Your task to perform on an android device: change the upload size in google photos Image 0: 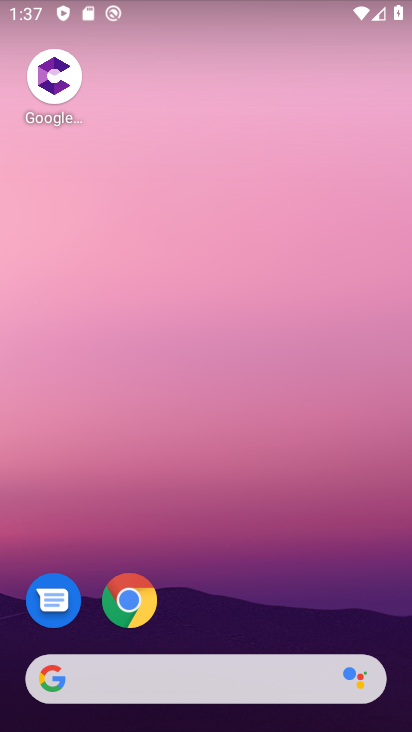
Step 0: press home button
Your task to perform on an android device: change the upload size in google photos Image 1: 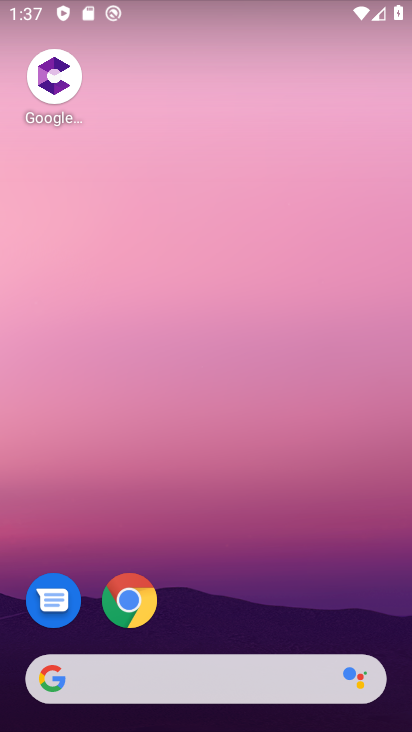
Step 1: drag from (234, 638) to (270, 18)
Your task to perform on an android device: change the upload size in google photos Image 2: 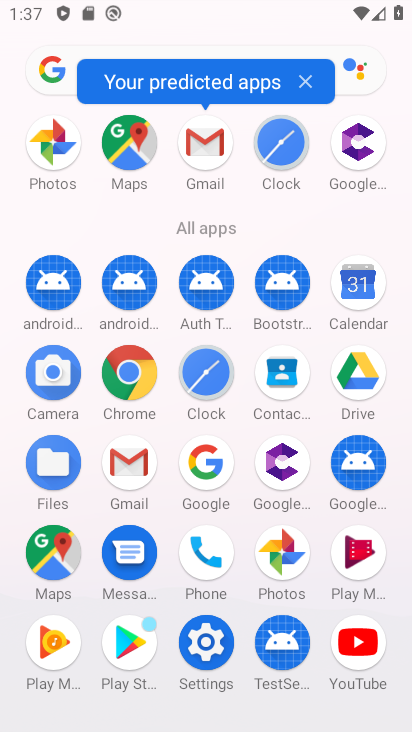
Step 2: click (278, 550)
Your task to perform on an android device: change the upload size in google photos Image 3: 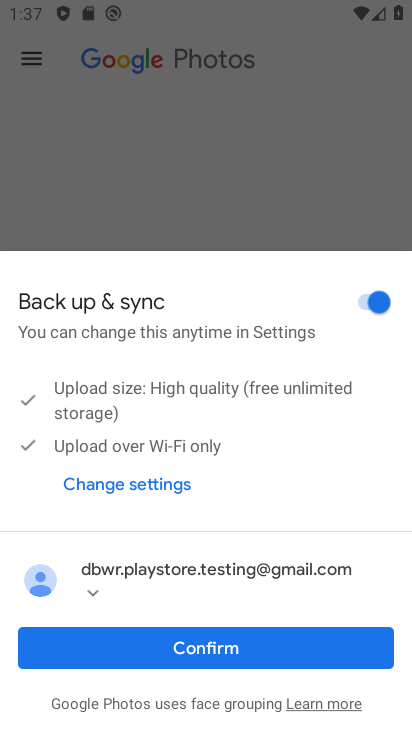
Step 3: click (189, 644)
Your task to perform on an android device: change the upload size in google photos Image 4: 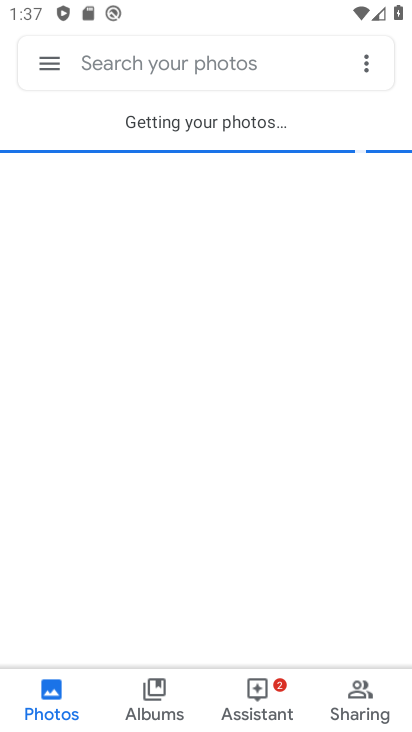
Step 4: click (42, 56)
Your task to perform on an android device: change the upload size in google photos Image 5: 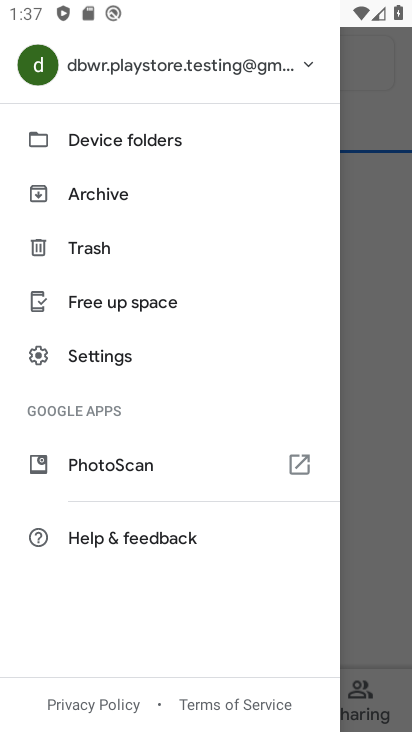
Step 5: click (131, 353)
Your task to perform on an android device: change the upload size in google photos Image 6: 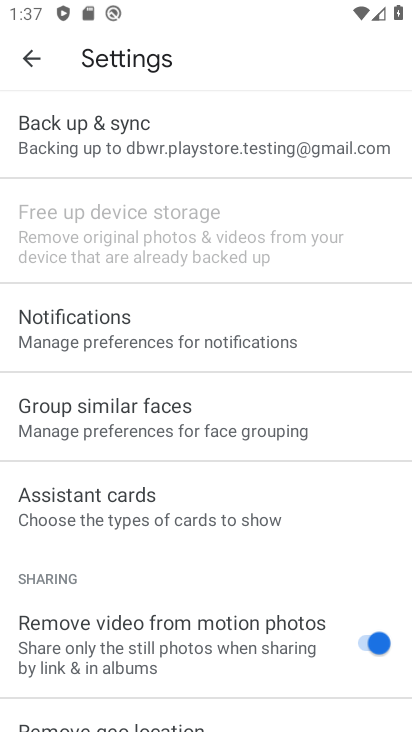
Step 6: click (119, 133)
Your task to perform on an android device: change the upload size in google photos Image 7: 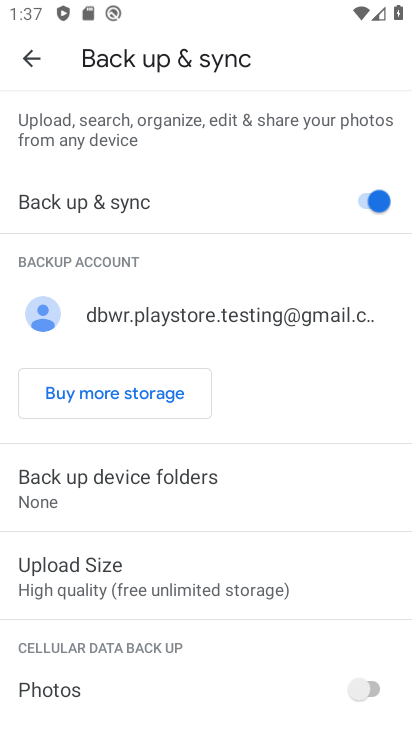
Step 7: click (140, 578)
Your task to perform on an android device: change the upload size in google photos Image 8: 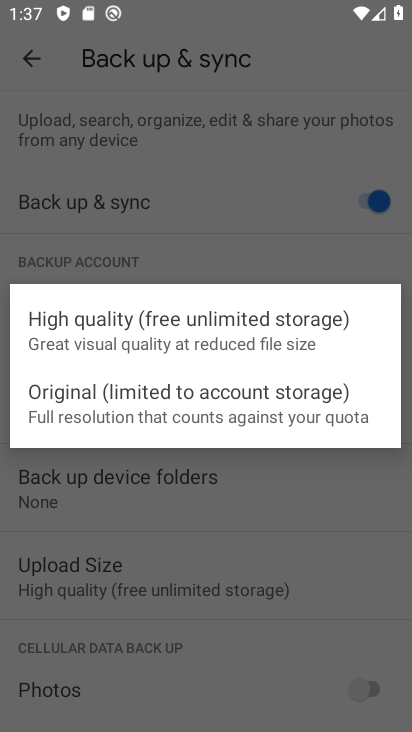
Step 8: click (123, 388)
Your task to perform on an android device: change the upload size in google photos Image 9: 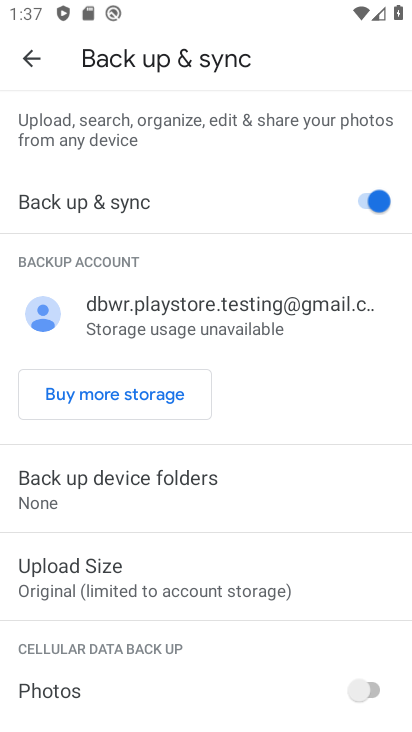
Step 9: task complete